Your task to perform on an android device: install app "PlayWell" Image 0: 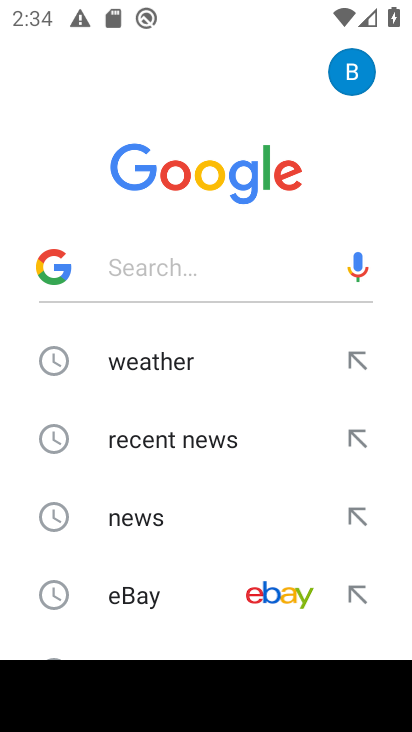
Step 0: press home button
Your task to perform on an android device: install app "PlayWell" Image 1: 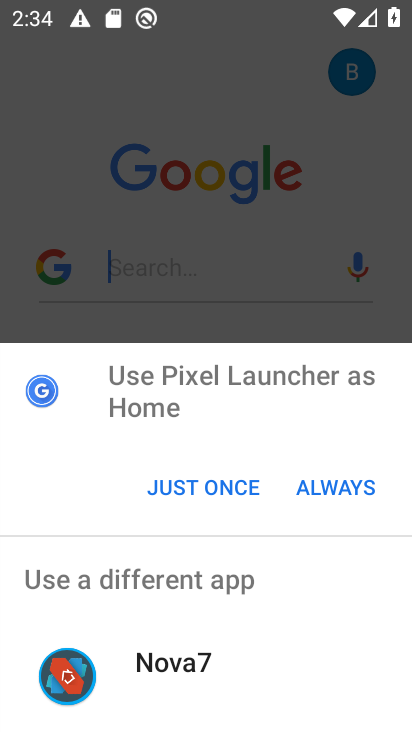
Step 1: click (225, 481)
Your task to perform on an android device: install app "PlayWell" Image 2: 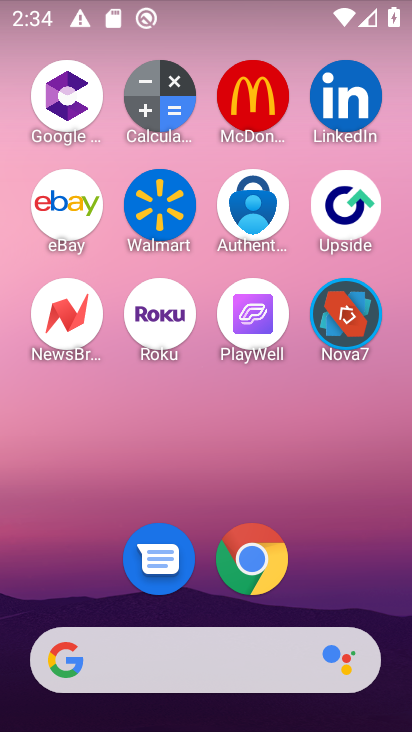
Step 2: drag from (166, 586) to (166, 41)
Your task to perform on an android device: install app "PlayWell" Image 3: 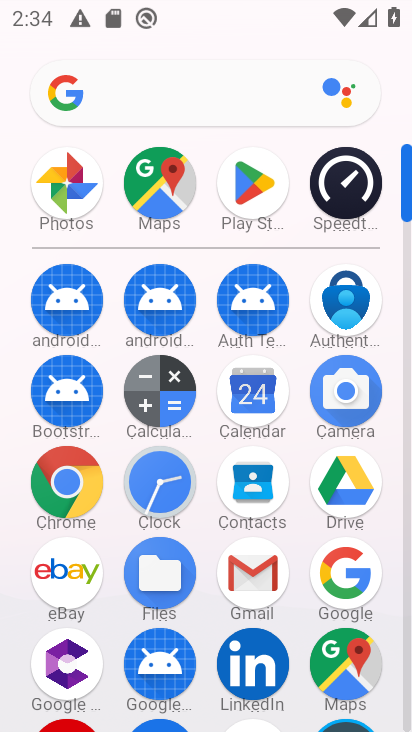
Step 3: click (241, 188)
Your task to perform on an android device: install app "PlayWell" Image 4: 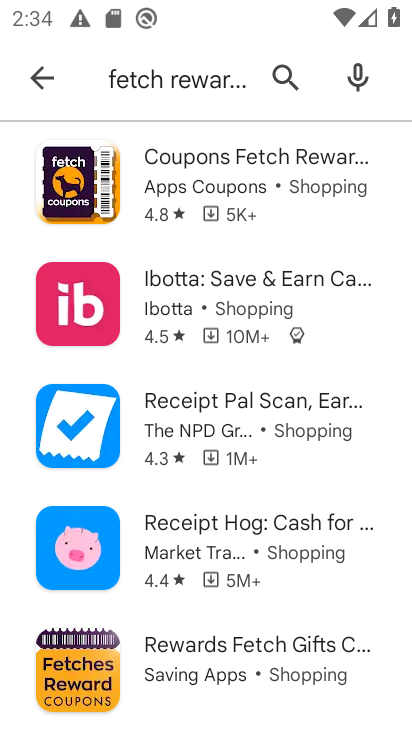
Step 4: click (284, 70)
Your task to perform on an android device: install app "PlayWell" Image 5: 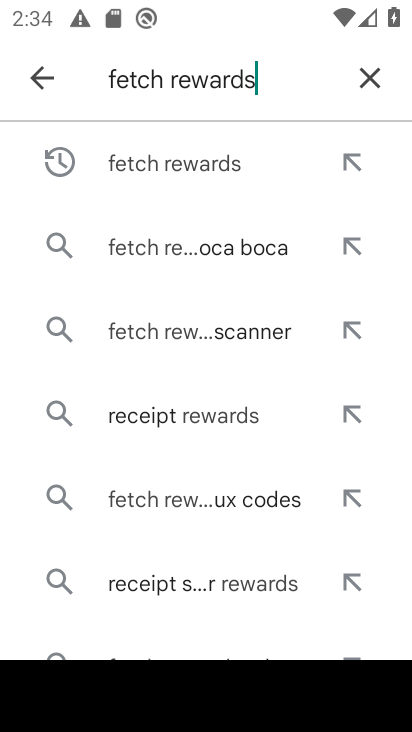
Step 5: click (377, 85)
Your task to perform on an android device: install app "PlayWell" Image 6: 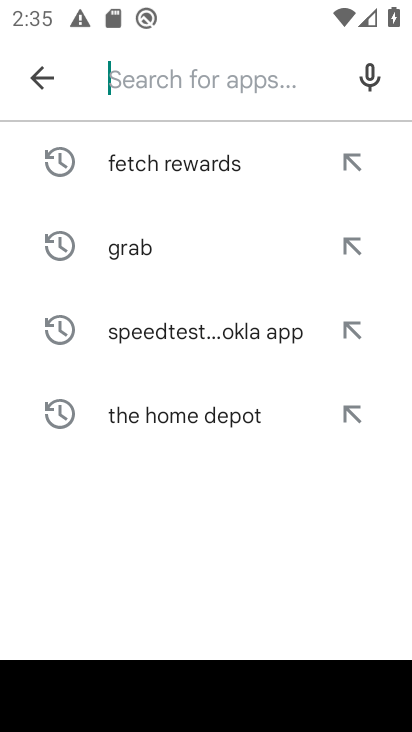
Step 6: type "PlayWell"
Your task to perform on an android device: install app "PlayWell" Image 7: 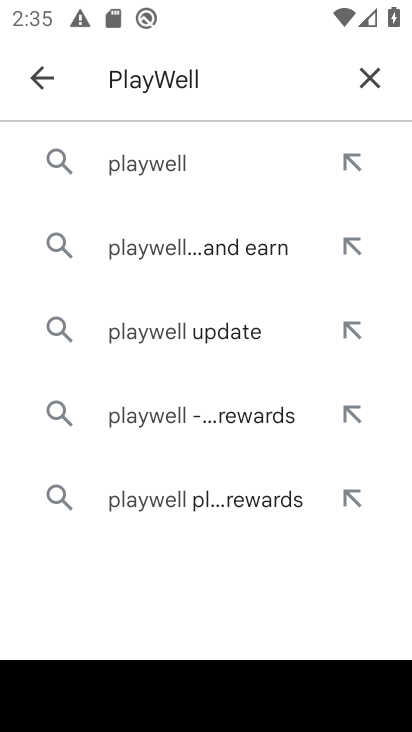
Step 7: click (173, 149)
Your task to perform on an android device: install app "PlayWell" Image 8: 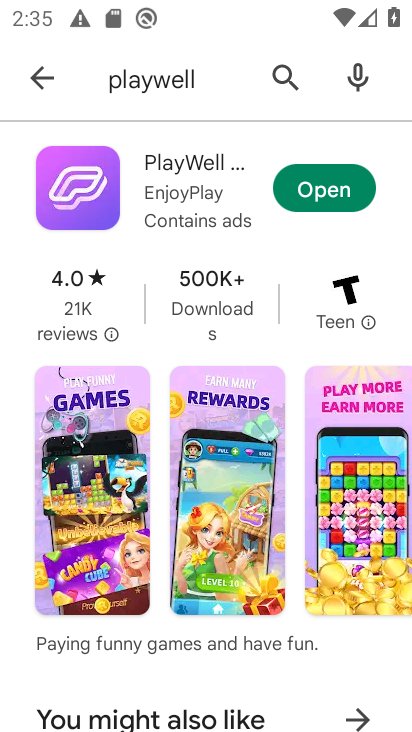
Step 8: click (299, 191)
Your task to perform on an android device: install app "PlayWell" Image 9: 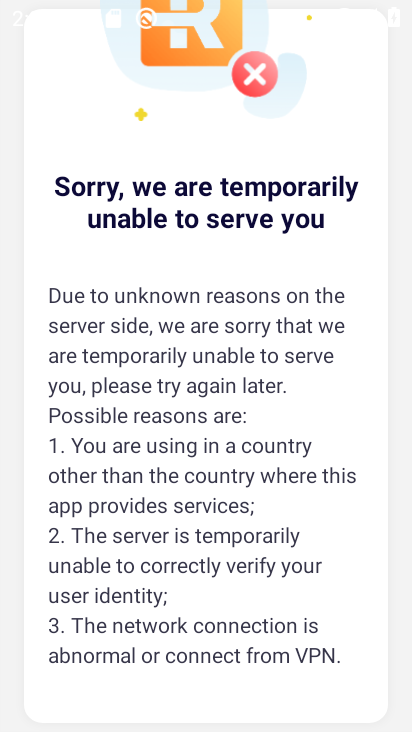
Step 9: task complete